Your task to perform on an android device: change alarm snooze length Image 0: 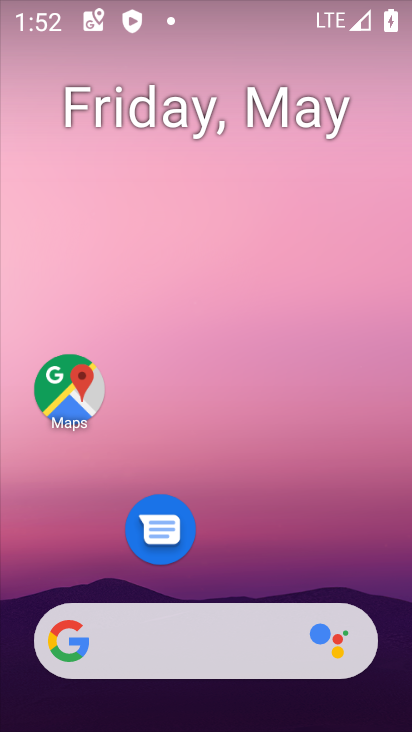
Step 0: drag from (209, 570) to (148, 138)
Your task to perform on an android device: change alarm snooze length Image 1: 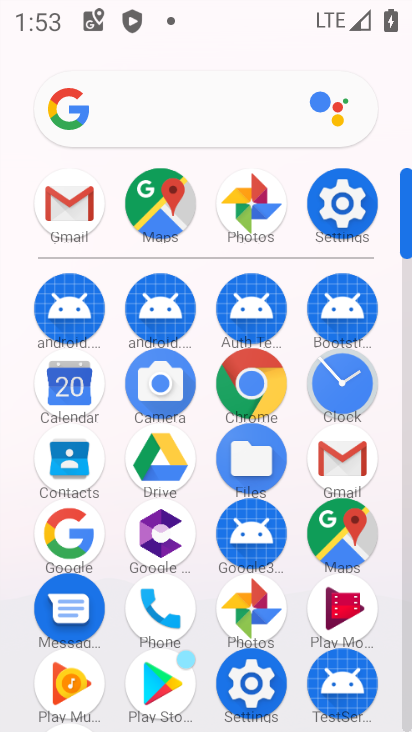
Step 1: click (344, 390)
Your task to perform on an android device: change alarm snooze length Image 2: 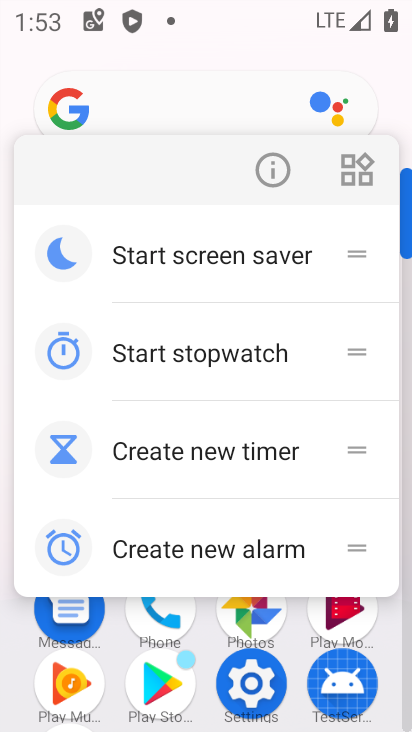
Step 2: click (275, 173)
Your task to perform on an android device: change alarm snooze length Image 3: 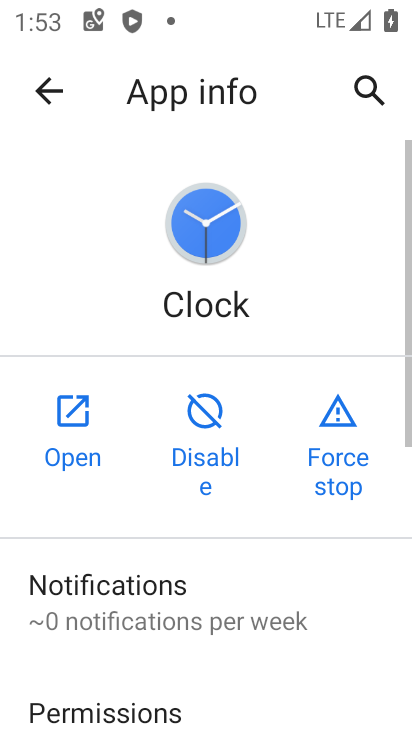
Step 3: click (89, 413)
Your task to perform on an android device: change alarm snooze length Image 4: 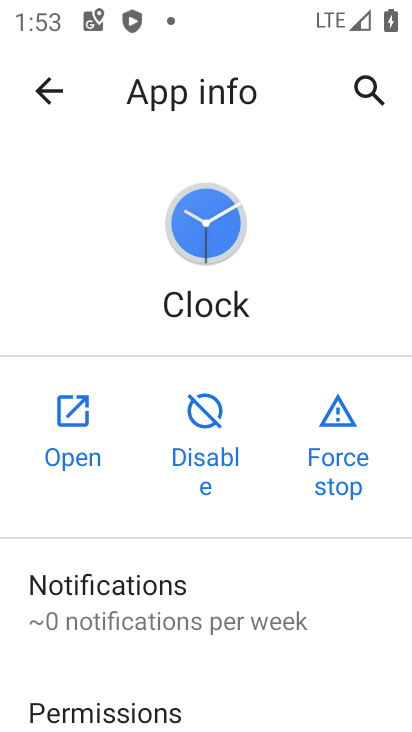
Step 4: click (89, 413)
Your task to perform on an android device: change alarm snooze length Image 5: 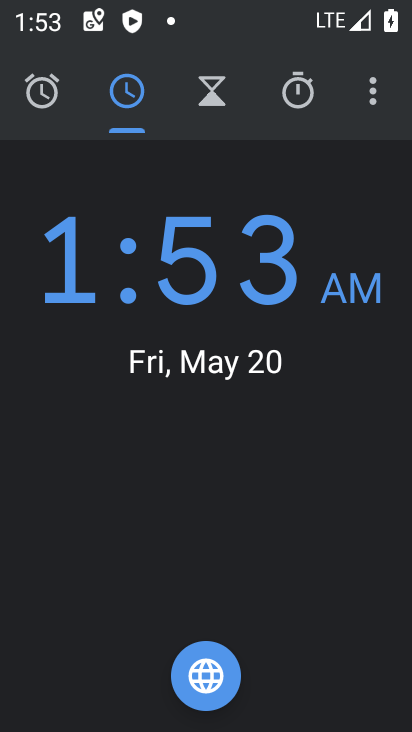
Step 5: click (292, 90)
Your task to perform on an android device: change alarm snooze length Image 6: 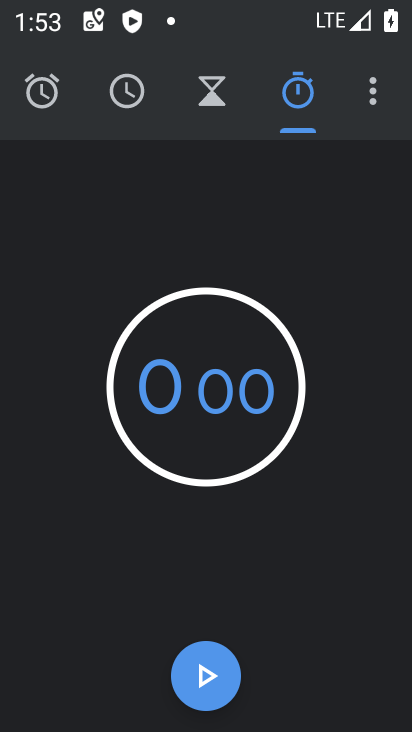
Step 6: click (368, 107)
Your task to perform on an android device: change alarm snooze length Image 7: 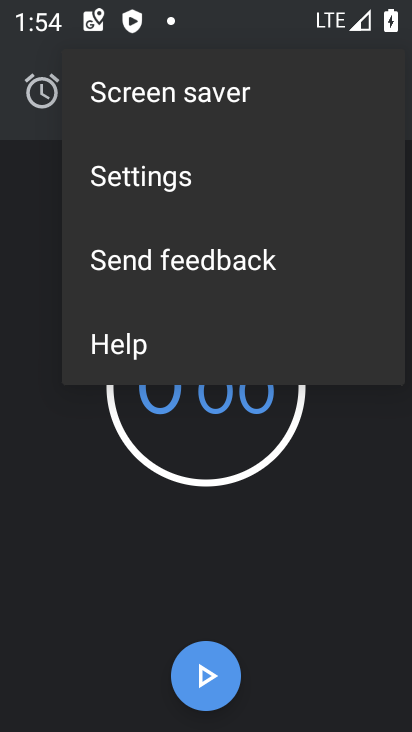
Step 7: click (194, 170)
Your task to perform on an android device: change alarm snooze length Image 8: 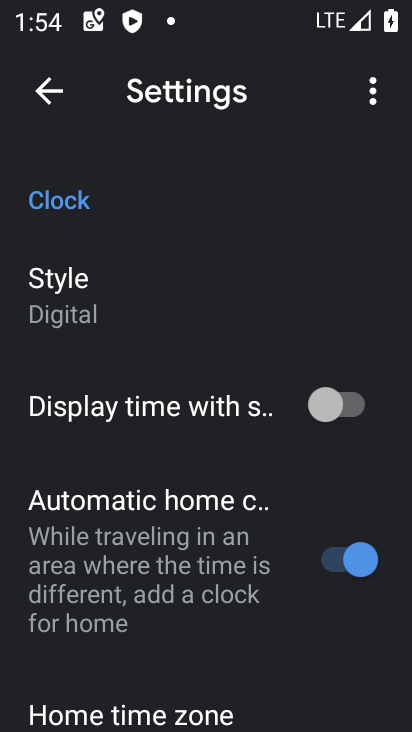
Step 8: drag from (208, 614) to (273, 271)
Your task to perform on an android device: change alarm snooze length Image 9: 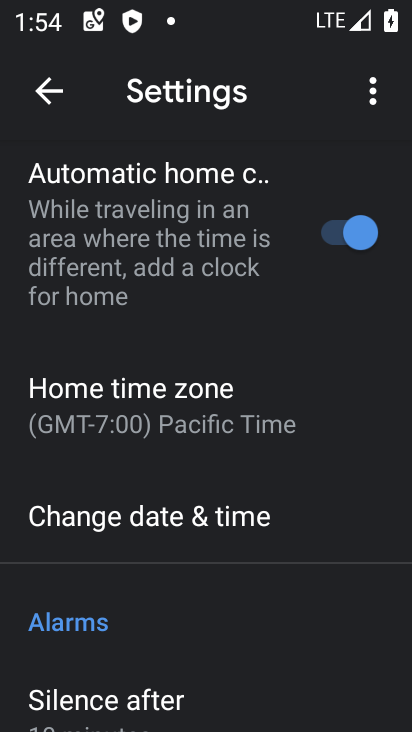
Step 9: drag from (234, 668) to (333, 186)
Your task to perform on an android device: change alarm snooze length Image 10: 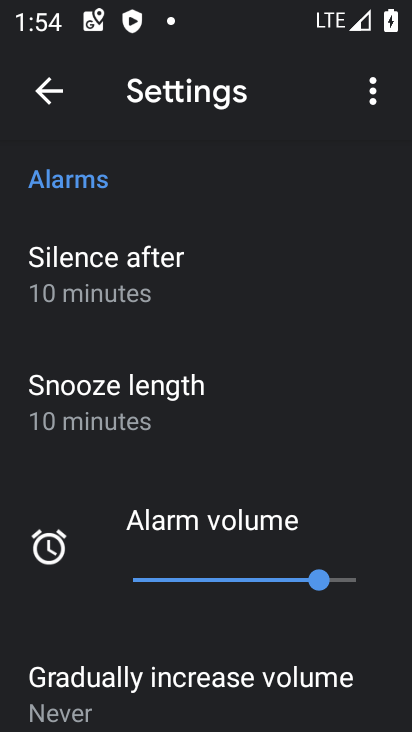
Step 10: drag from (210, 564) to (255, 241)
Your task to perform on an android device: change alarm snooze length Image 11: 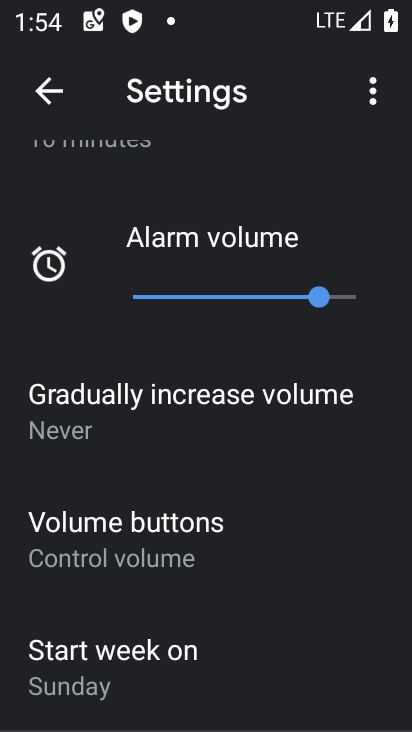
Step 11: drag from (229, 213) to (270, 528)
Your task to perform on an android device: change alarm snooze length Image 12: 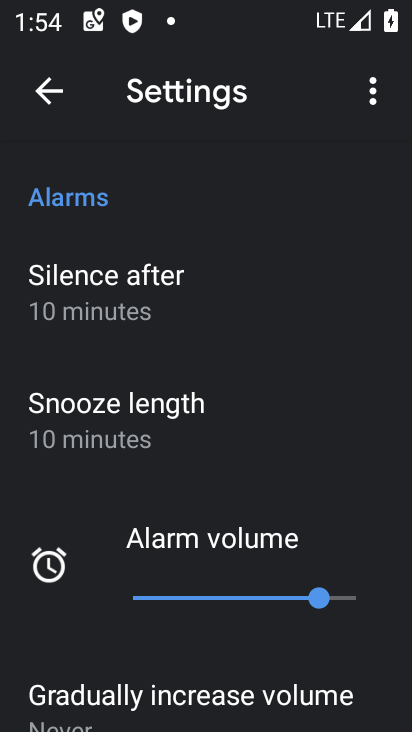
Step 12: click (152, 407)
Your task to perform on an android device: change alarm snooze length Image 13: 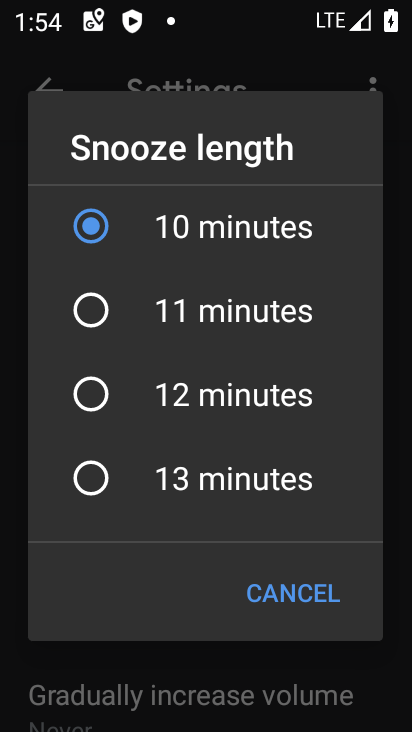
Step 13: drag from (206, 404) to (256, 218)
Your task to perform on an android device: change alarm snooze length Image 14: 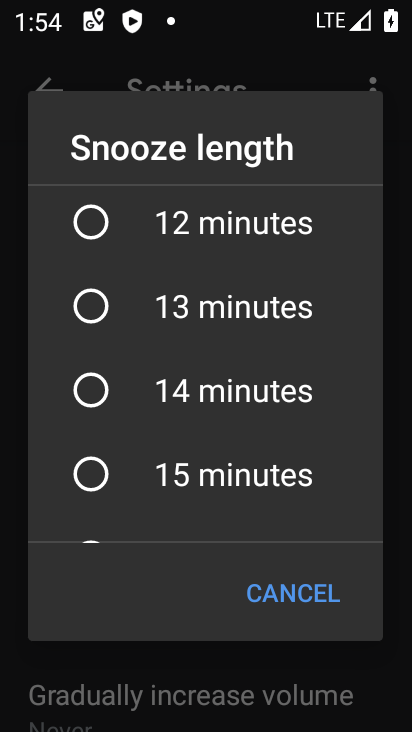
Step 14: drag from (222, 415) to (285, 83)
Your task to perform on an android device: change alarm snooze length Image 15: 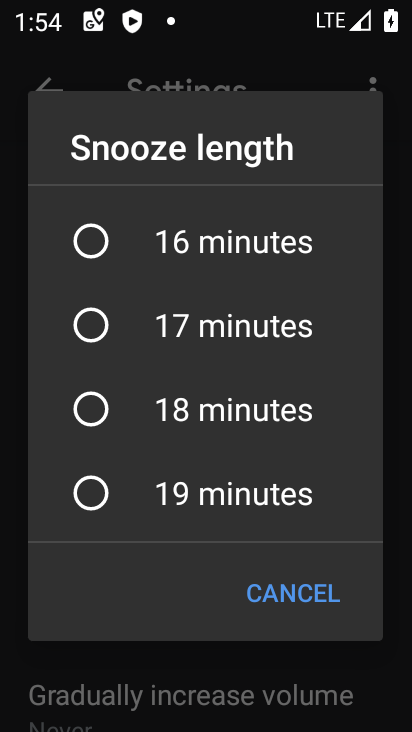
Step 15: click (207, 321)
Your task to perform on an android device: change alarm snooze length Image 16: 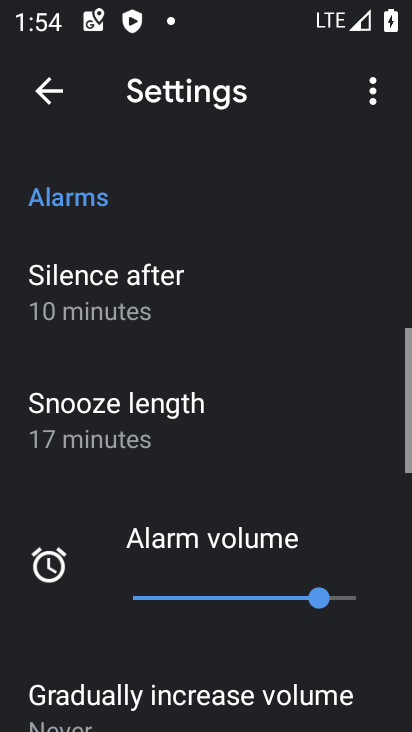
Step 16: task complete